Your task to perform on an android device: create a new album in the google photos Image 0: 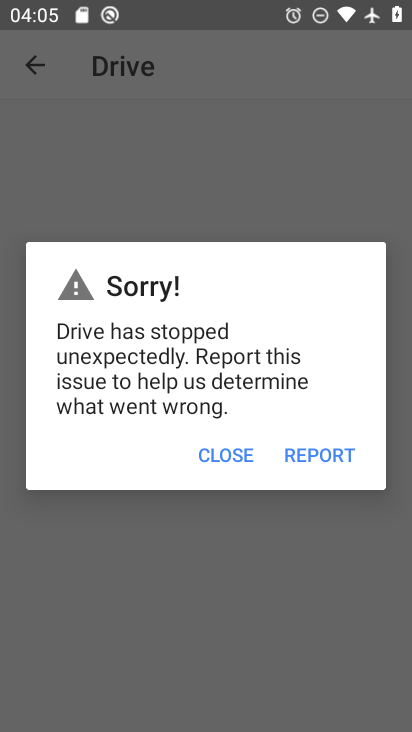
Step 0: click (239, 462)
Your task to perform on an android device: create a new album in the google photos Image 1: 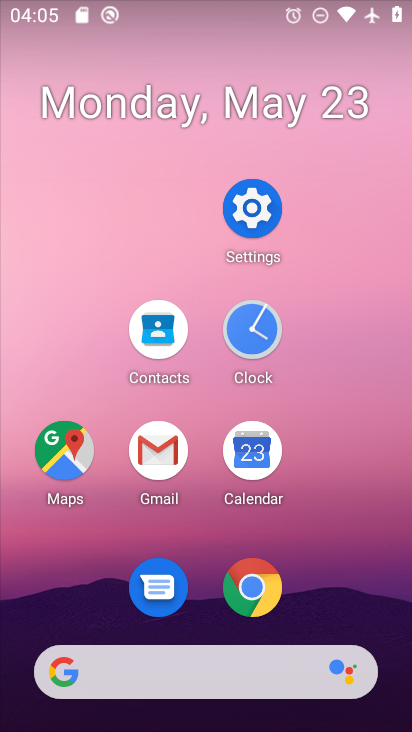
Step 1: drag from (340, 605) to (354, 251)
Your task to perform on an android device: create a new album in the google photos Image 2: 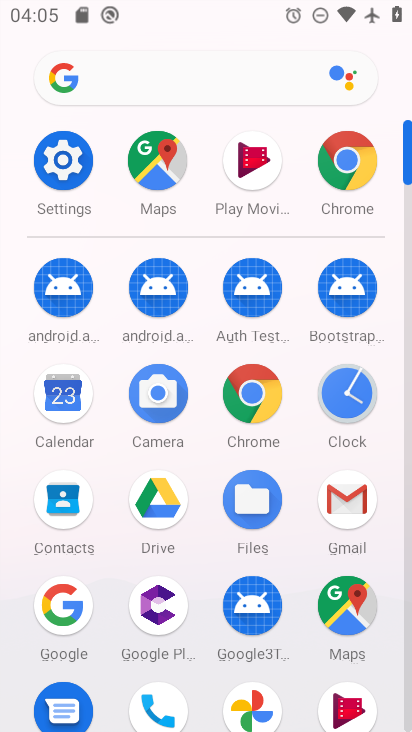
Step 2: click (249, 690)
Your task to perform on an android device: create a new album in the google photos Image 3: 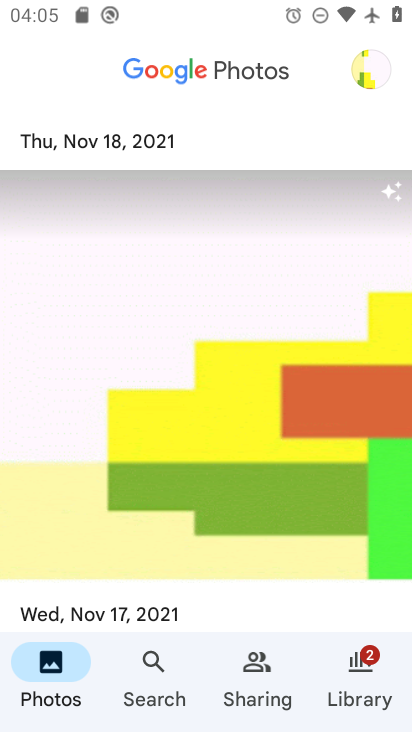
Step 3: click (369, 90)
Your task to perform on an android device: create a new album in the google photos Image 4: 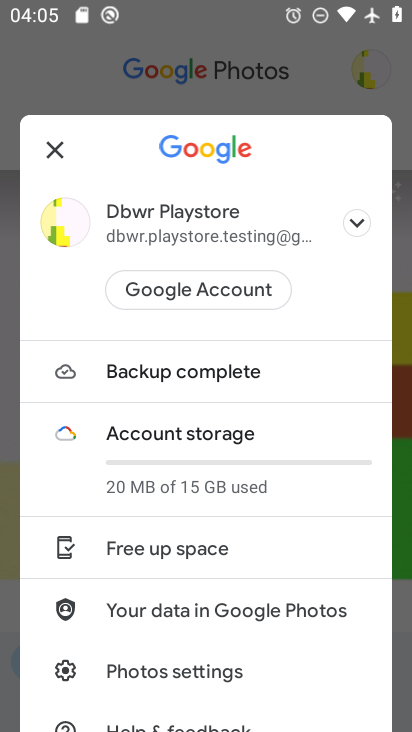
Step 4: click (50, 171)
Your task to perform on an android device: create a new album in the google photos Image 5: 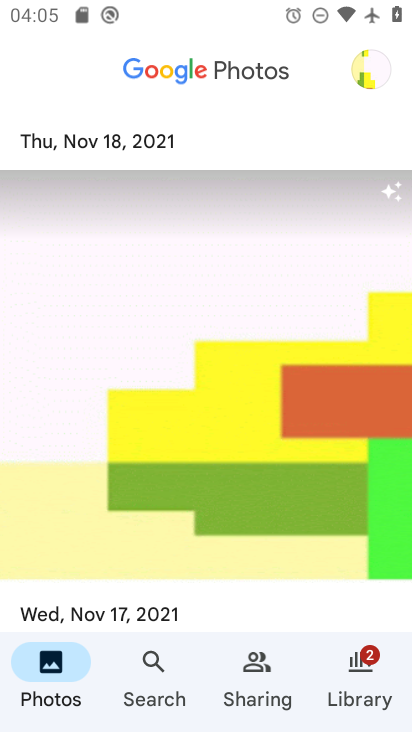
Step 5: click (382, 684)
Your task to perform on an android device: create a new album in the google photos Image 6: 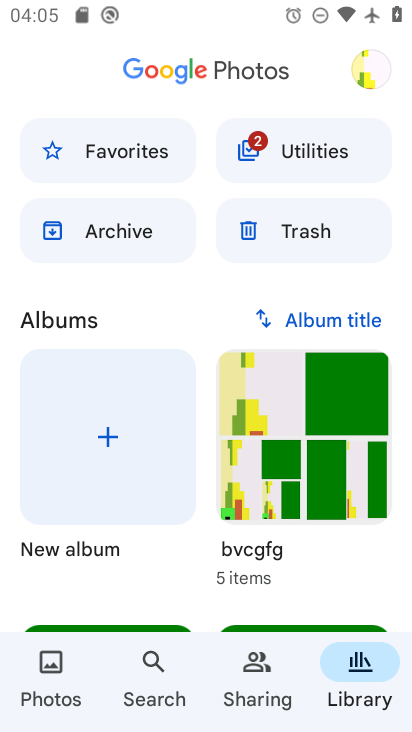
Step 6: click (158, 229)
Your task to perform on an android device: create a new album in the google photos Image 7: 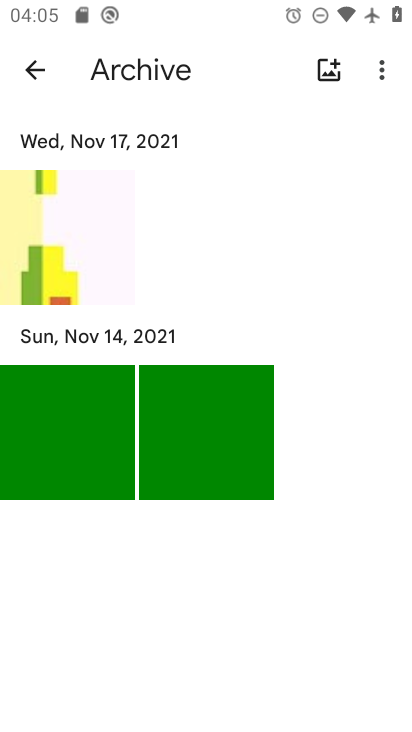
Step 7: click (35, 71)
Your task to perform on an android device: create a new album in the google photos Image 8: 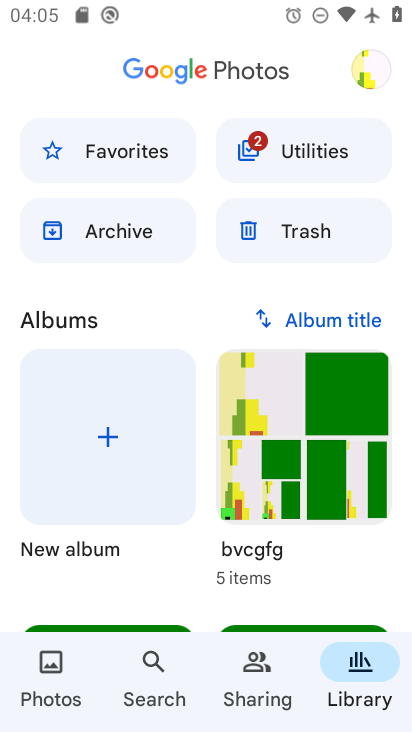
Step 8: click (108, 455)
Your task to perform on an android device: create a new album in the google photos Image 9: 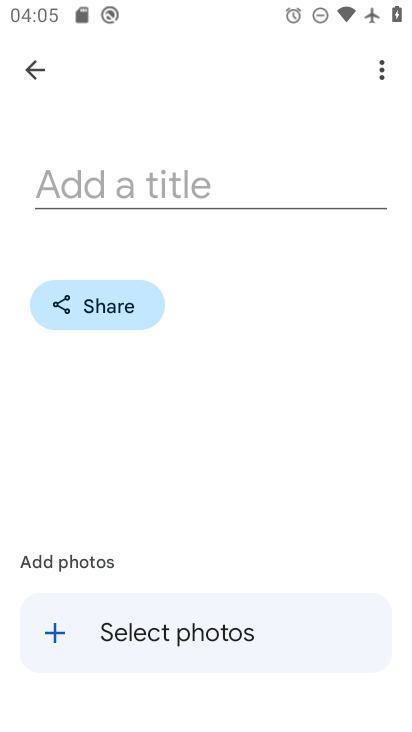
Step 9: click (141, 169)
Your task to perform on an android device: create a new album in the google photos Image 10: 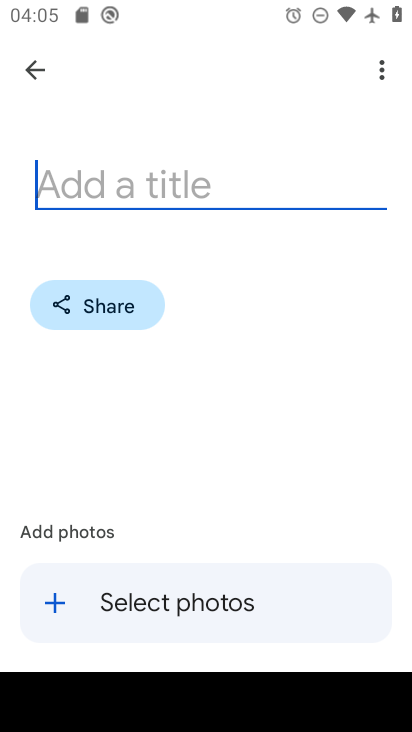
Step 10: type "sdfcdsf"
Your task to perform on an android device: create a new album in the google photos Image 11: 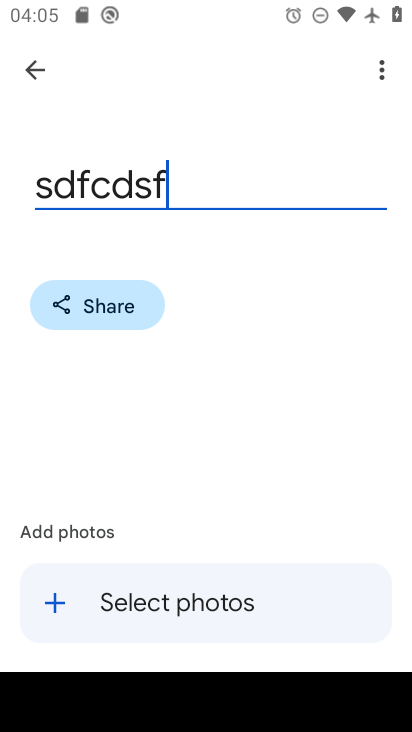
Step 11: click (155, 577)
Your task to perform on an android device: create a new album in the google photos Image 12: 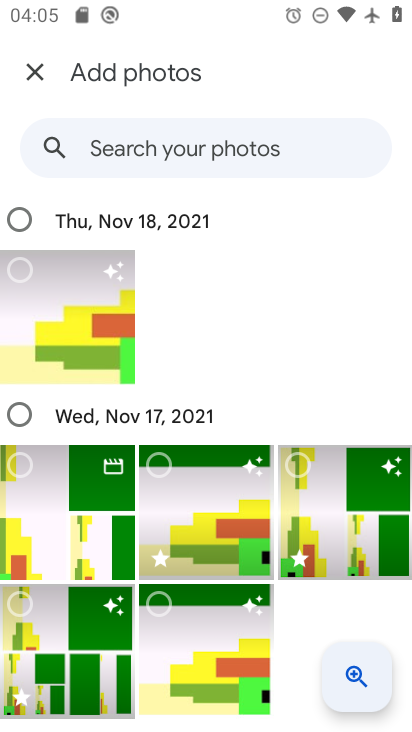
Step 12: click (27, 235)
Your task to perform on an android device: create a new album in the google photos Image 13: 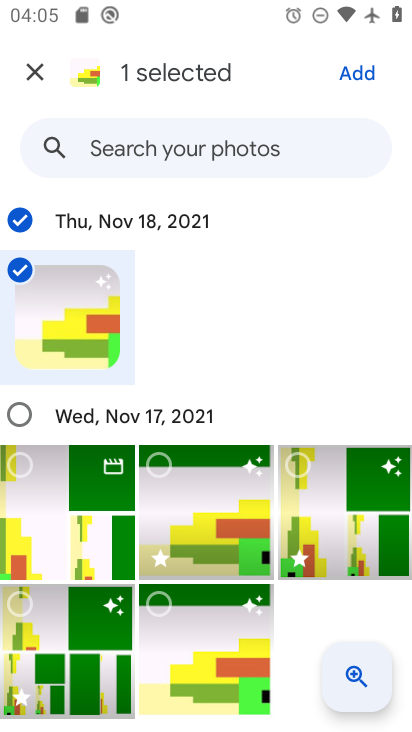
Step 13: click (23, 412)
Your task to perform on an android device: create a new album in the google photos Image 14: 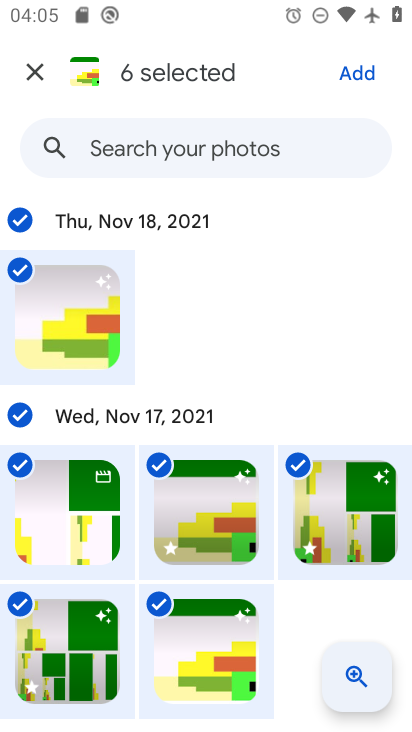
Step 14: click (342, 63)
Your task to perform on an android device: create a new album in the google photos Image 15: 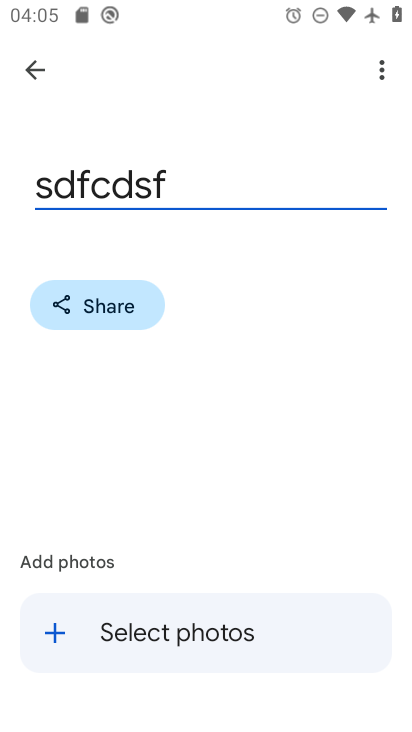
Step 15: task complete